Your task to perform on an android device: make emails show in primary in the gmail app Image 0: 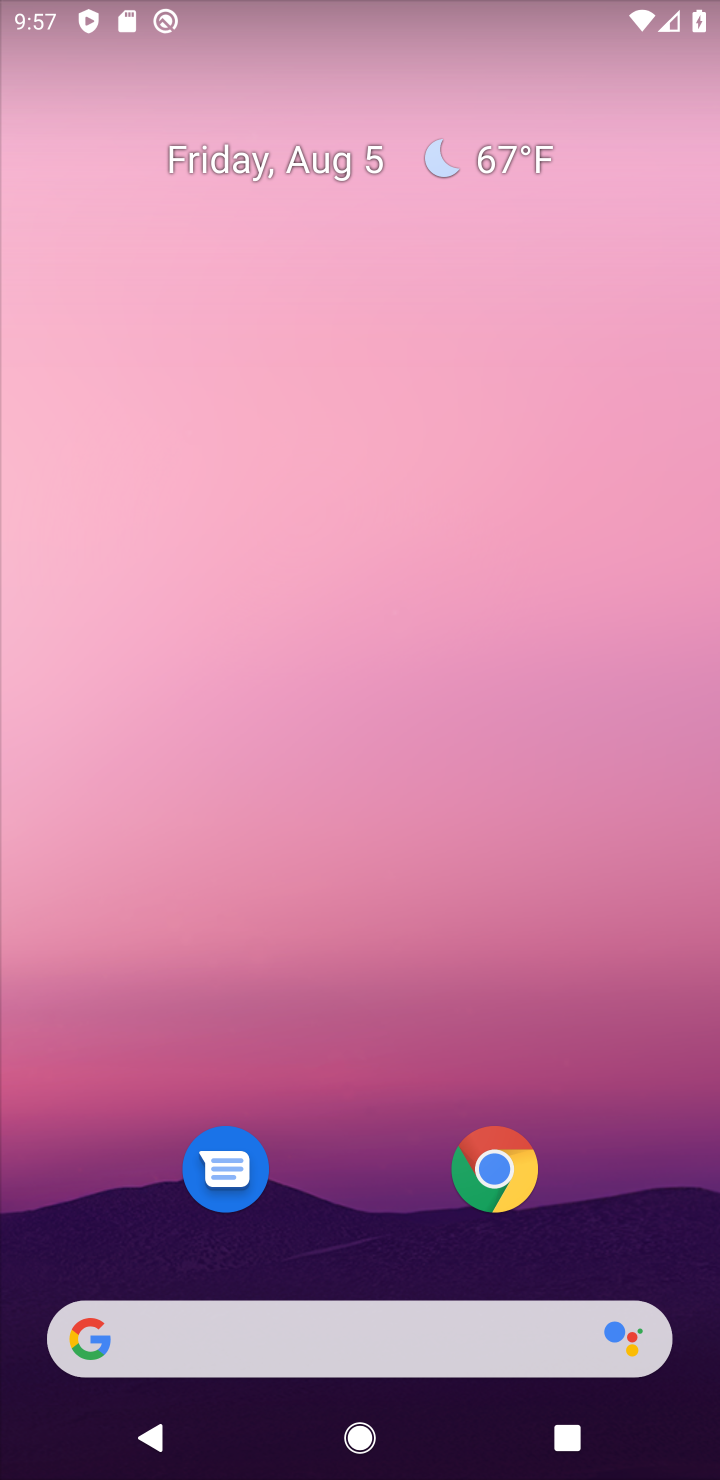
Step 0: drag from (645, 1200) to (575, 199)
Your task to perform on an android device: make emails show in primary in the gmail app Image 1: 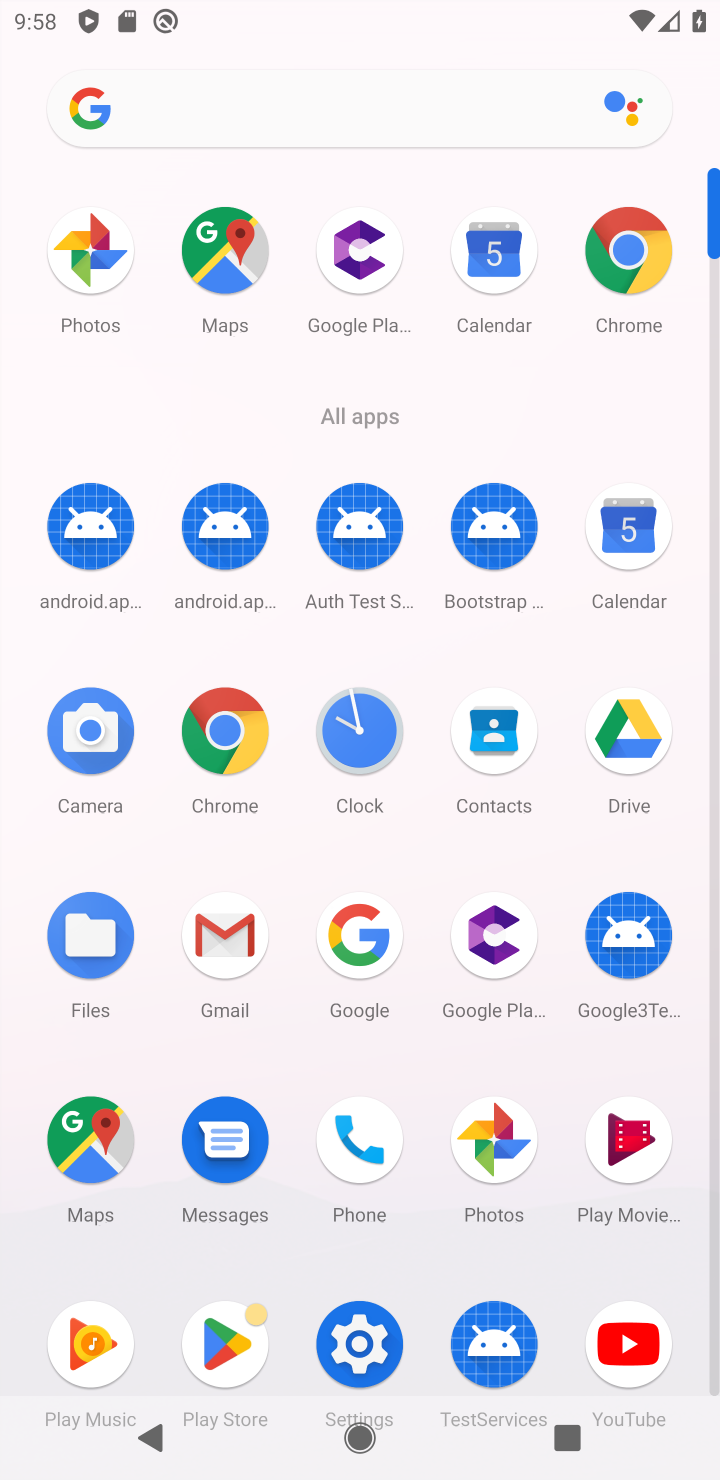
Step 1: click (218, 935)
Your task to perform on an android device: make emails show in primary in the gmail app Image 2: 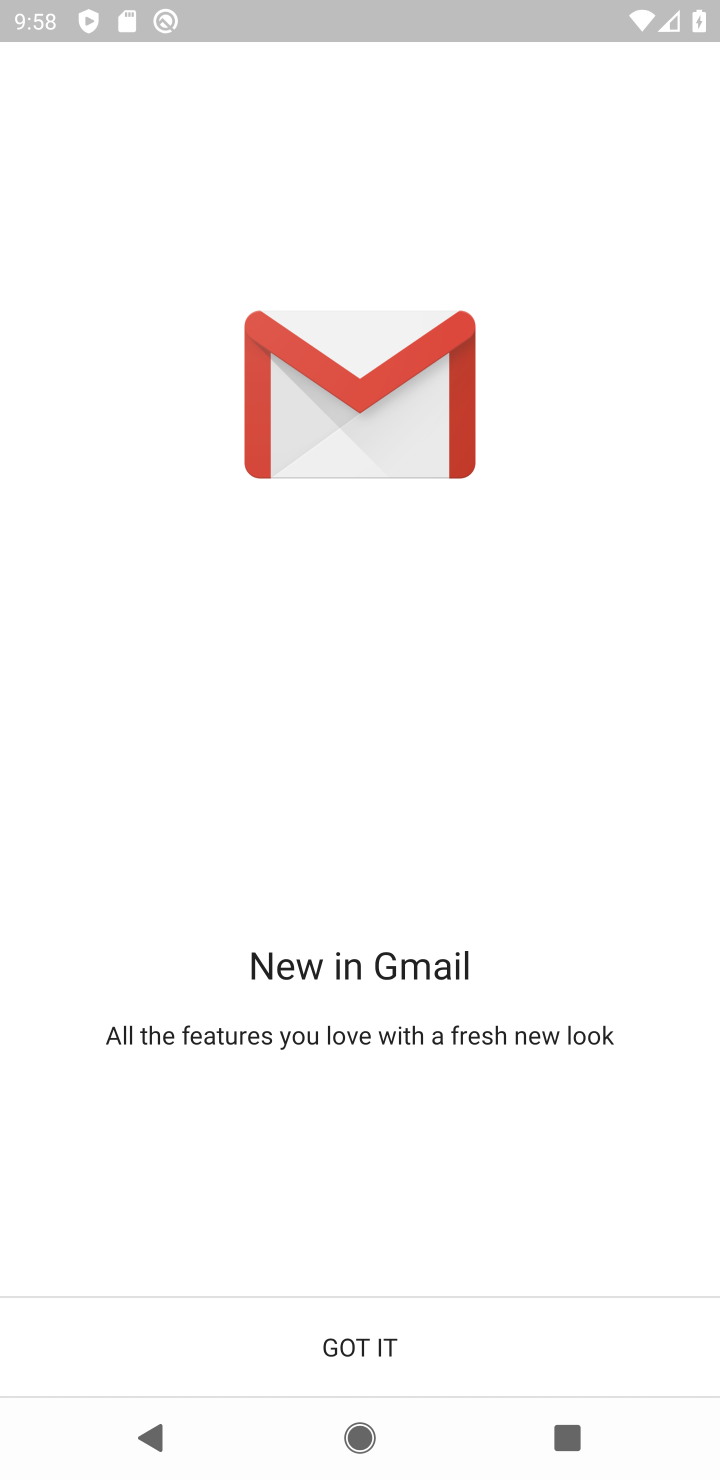
Step 2: click (345, 1338)
Your task to perform on an android device: make emails show in primary in the gmail app Image 3: 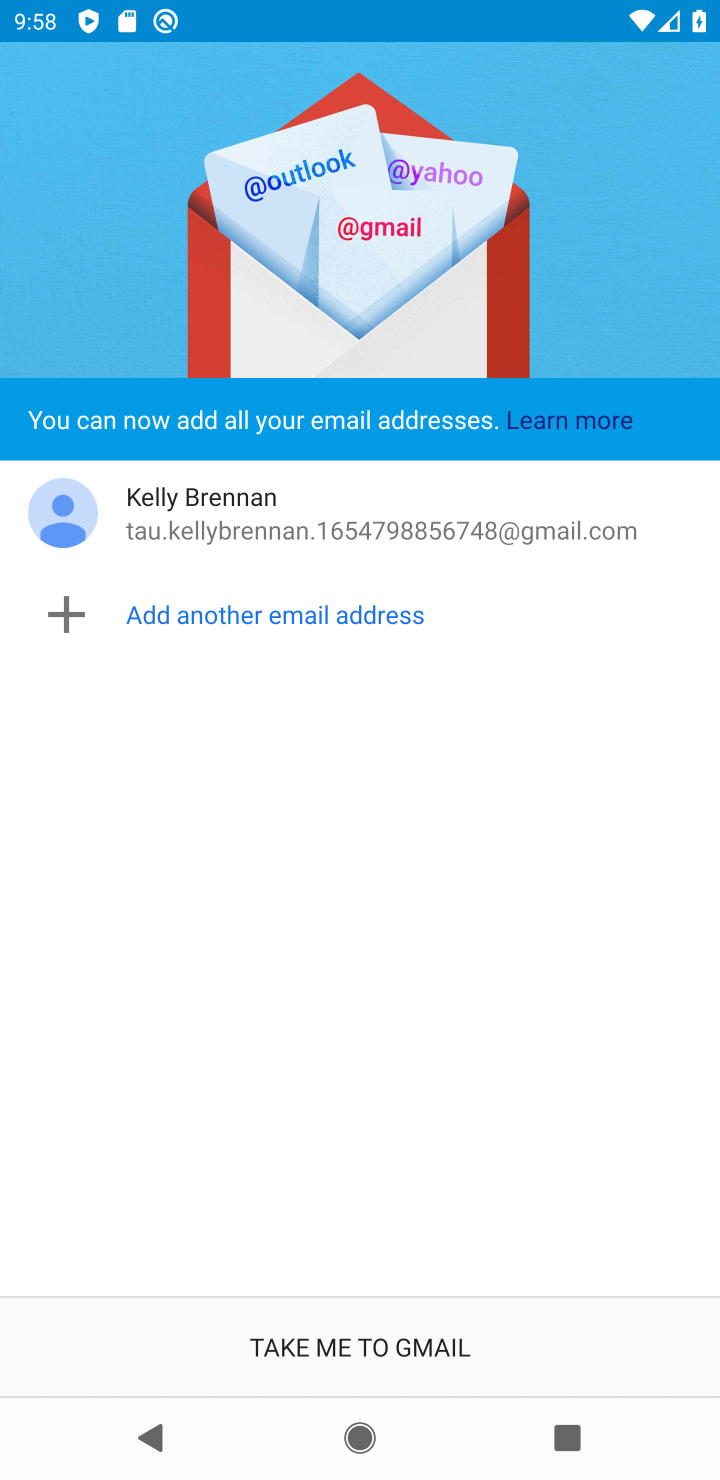
Step 3: click (331, 1348)
Your task to perform on an android device: make emails show in primary in the gmail app Image 4: 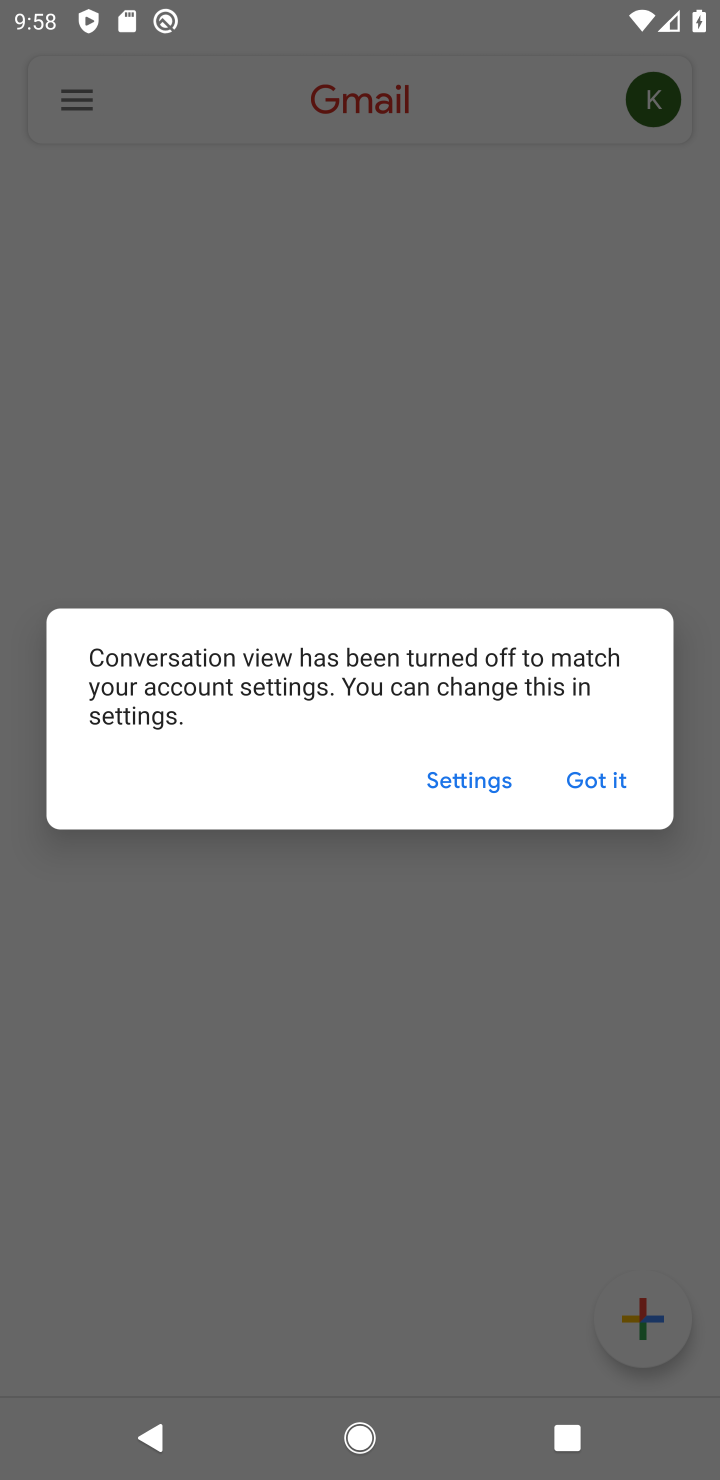
Step 4: click (621, 789)
Your task to perform on an android device: make emails show in primary in the gmail app Image 5: 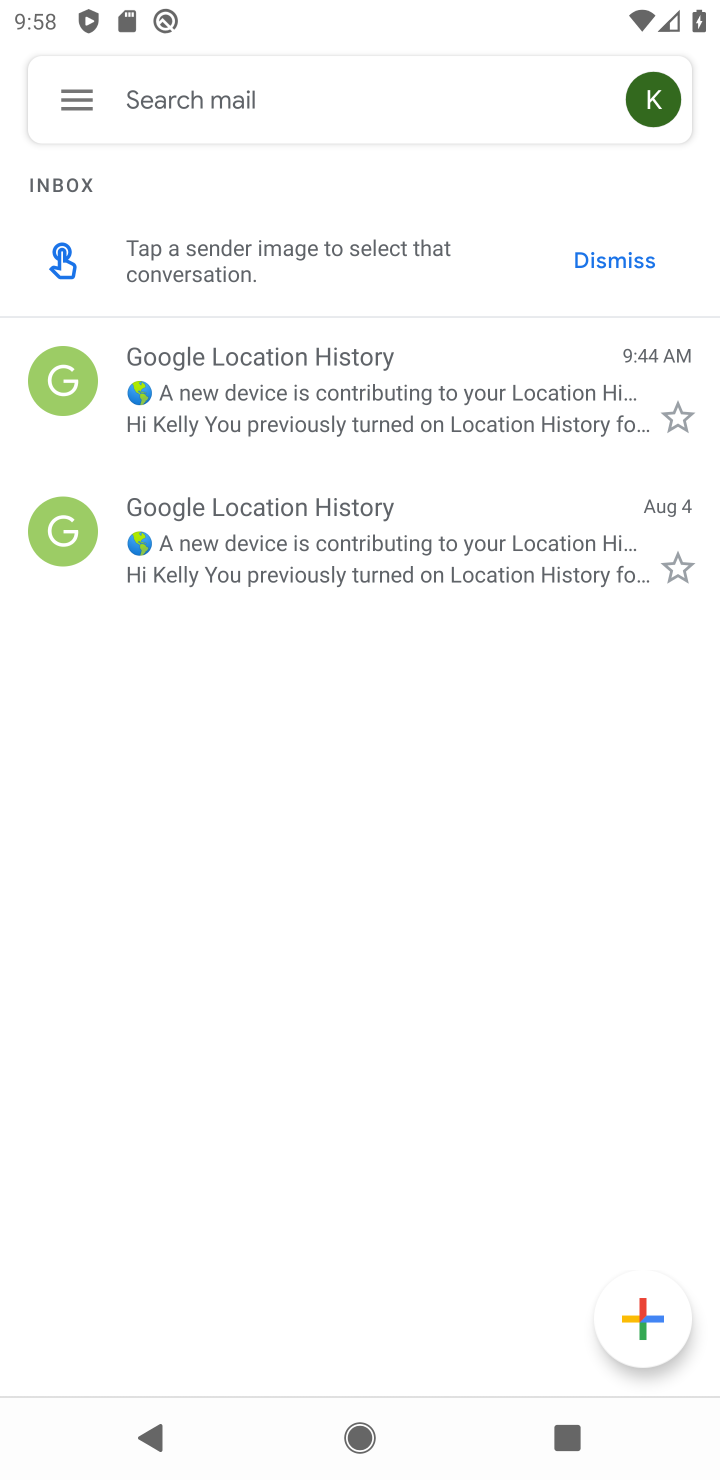
Step 5: click (82, 109)
Your task to perform on an android device: make emails show in primary in the gmail app Image 6: 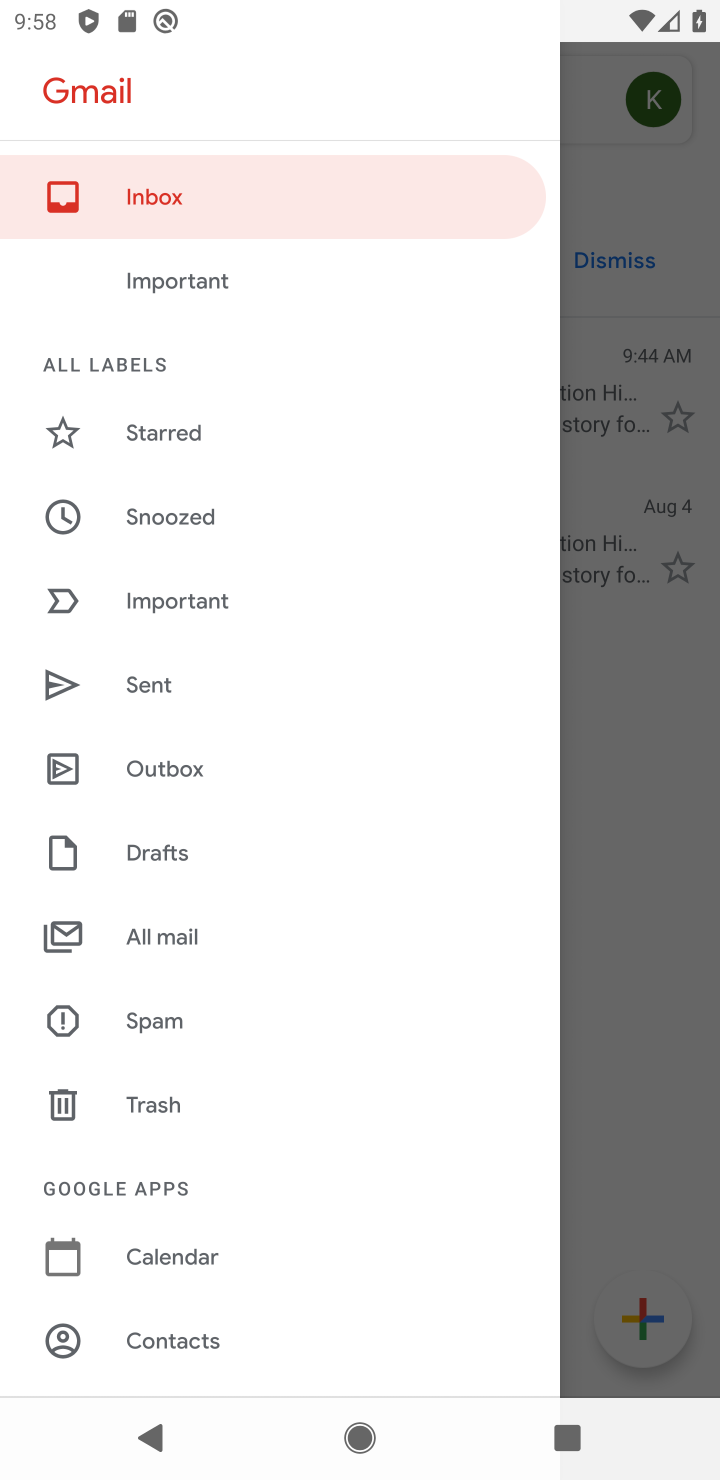
Step 6: drag from (176, 1333) to (288, 647)
Your task to perform on an android device: make emails show in primary in the gmail app Image 7: 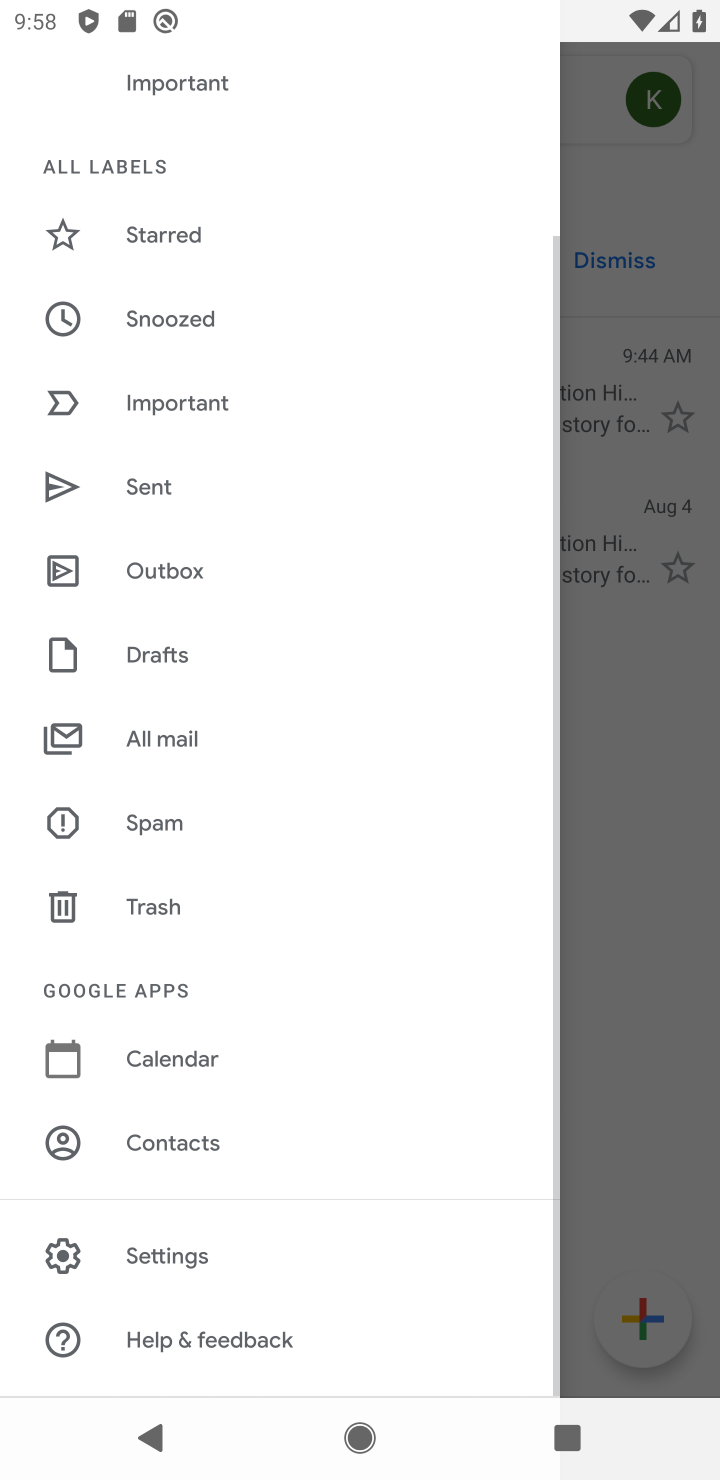
Step 7: click (141, 1255)
Your task to perform on an android device: make emails show in primary in the gmail app Image 8: 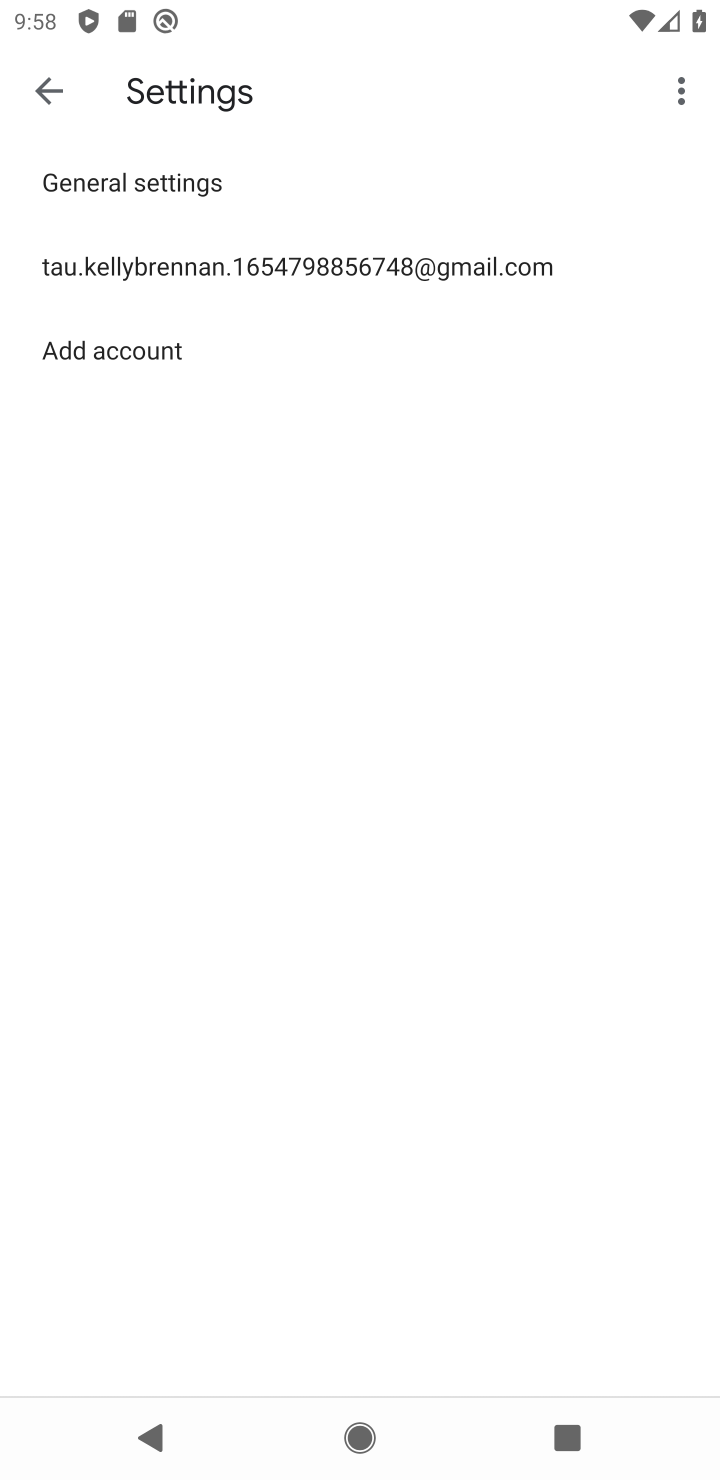
Step 8: click (256, 248)
Your task to perform on an android device: make emails show in primary in the gmail app Image 9: 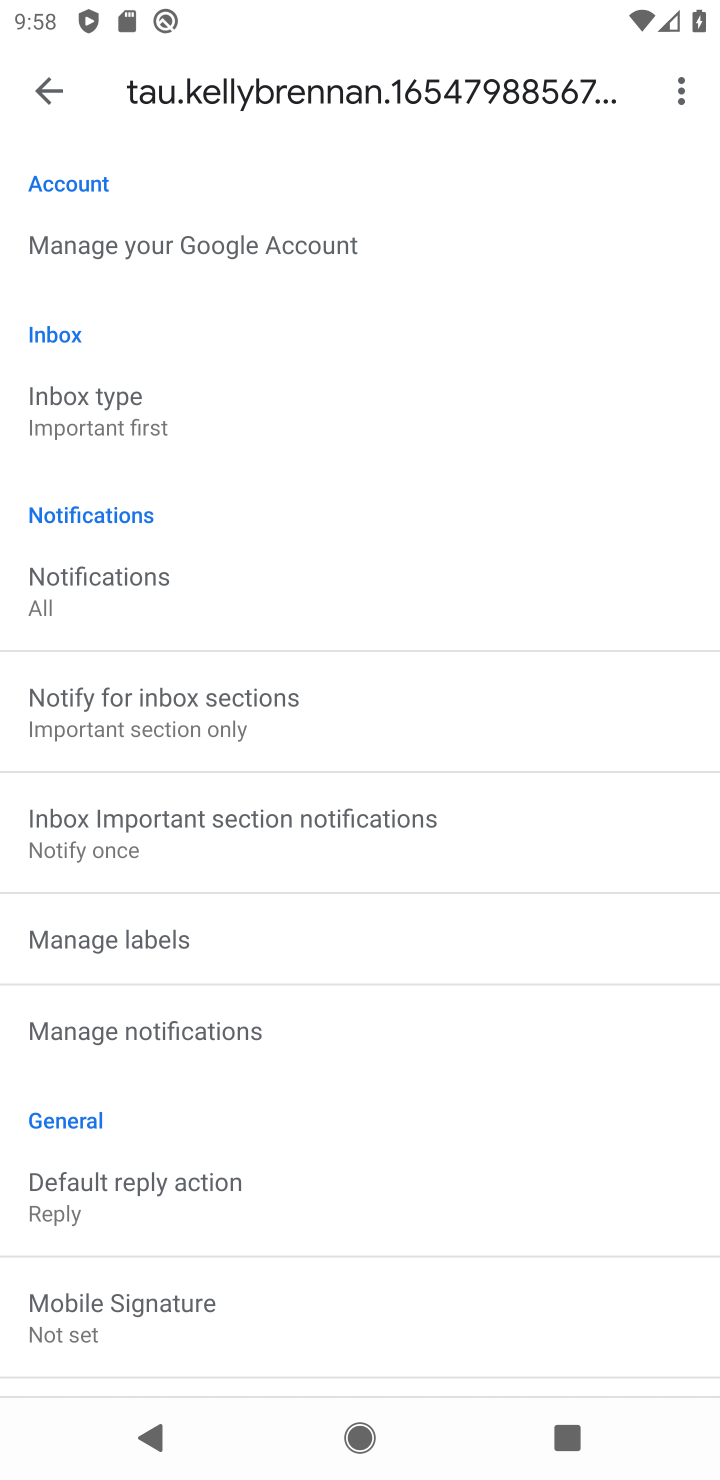
Step 9: click (45, 422)
Your task to perform on an android device: make emails show in primary in the gmail app Image 10: 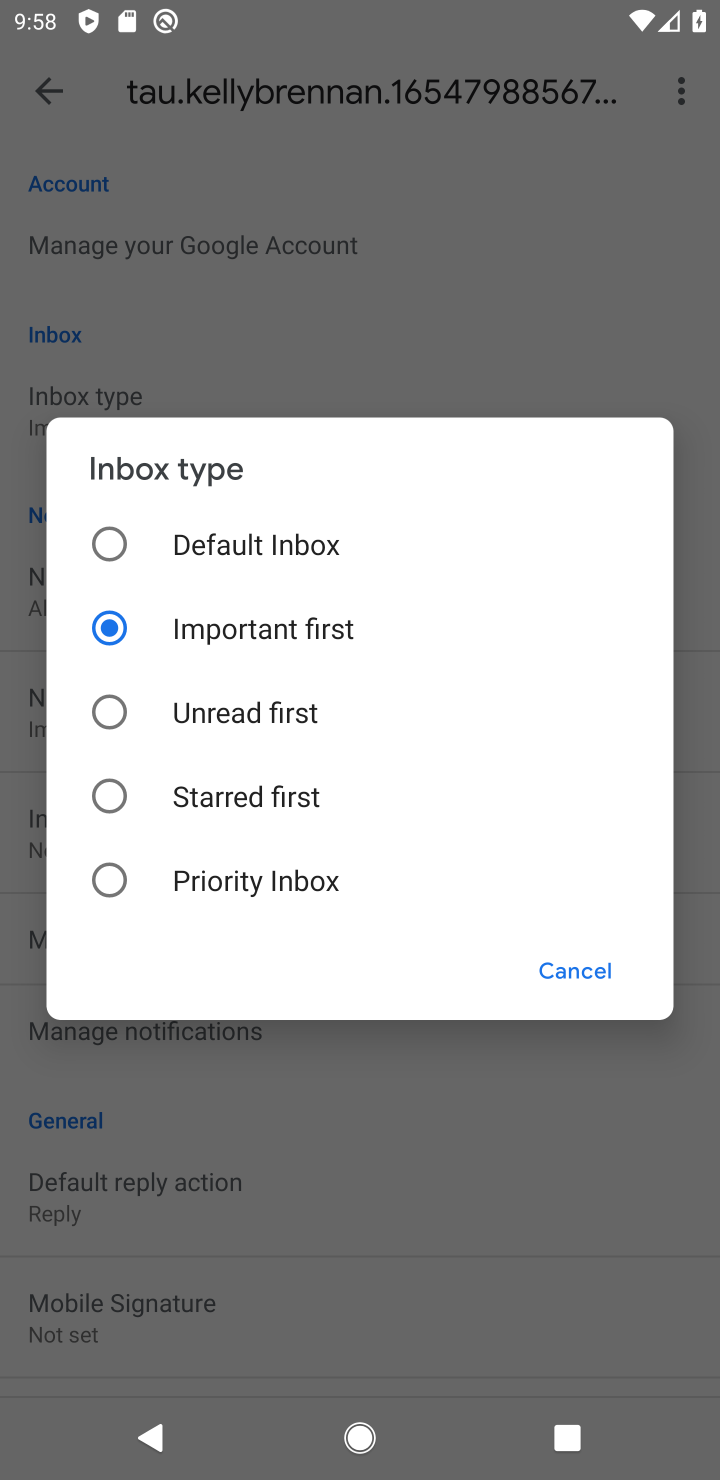
Step 10: click (108, 539)
Your task to perform on an android device: make emails show in primary in the gmail app Image 11: 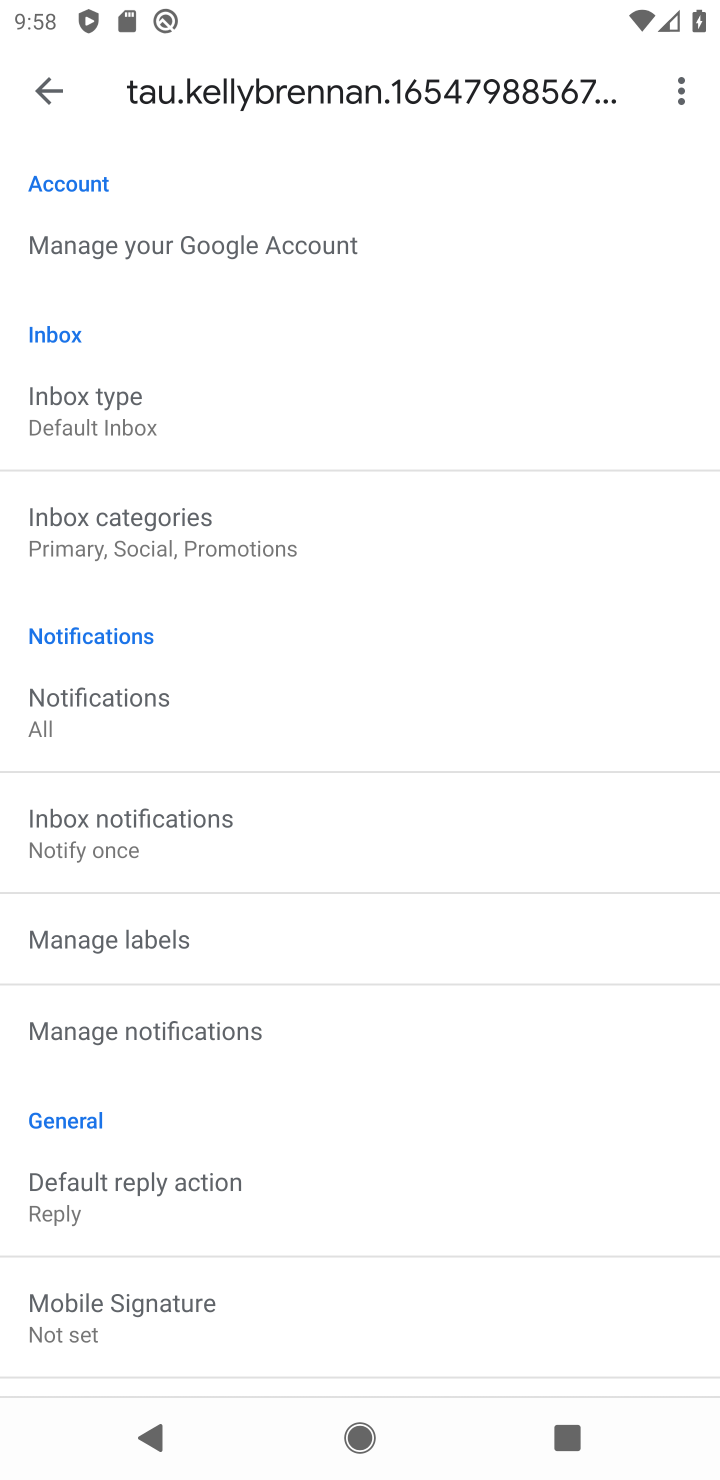
Step 11: click (165, 521)
Your task to perform on an android device: make emails show in primary in the gmail app Image 12: 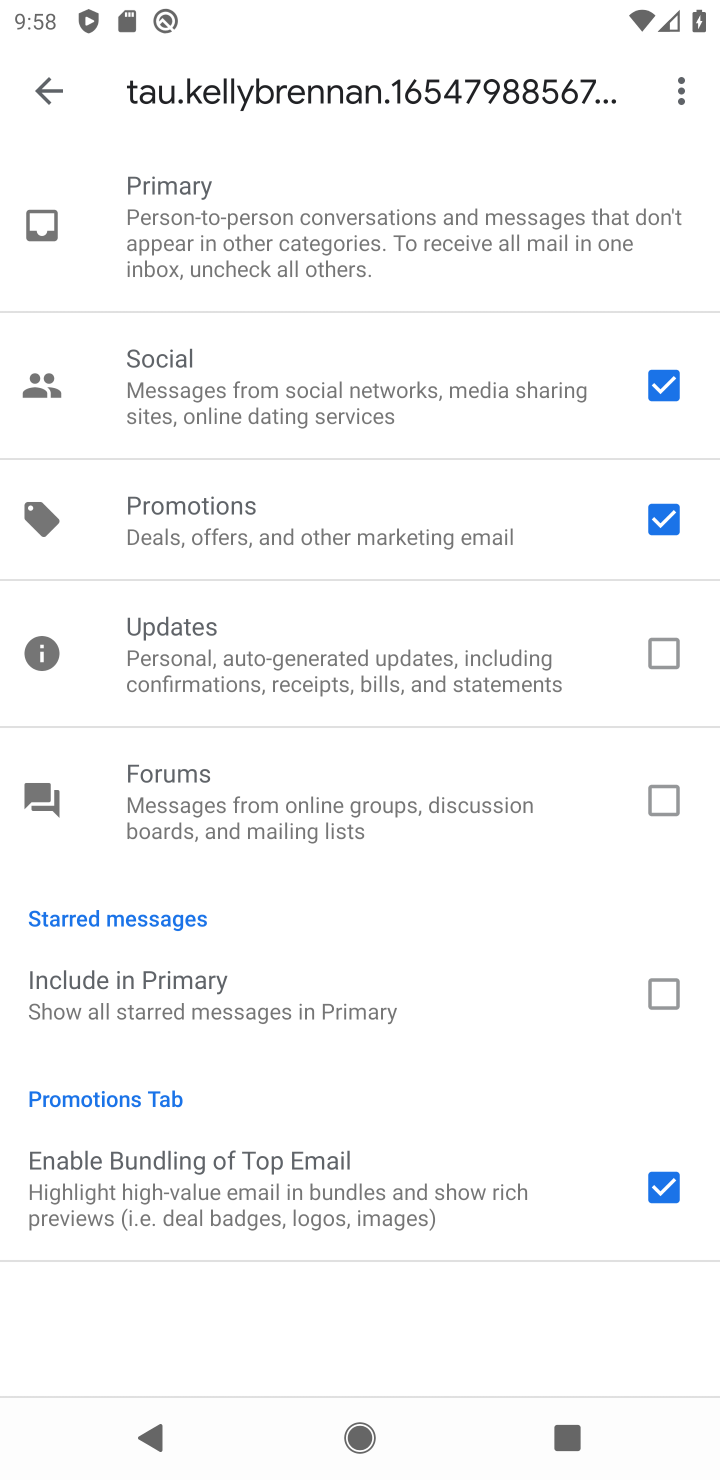
Step 12: click (663, 515)
Your task to perform on an android device: make emails show in primary in the gmail app Image 13: 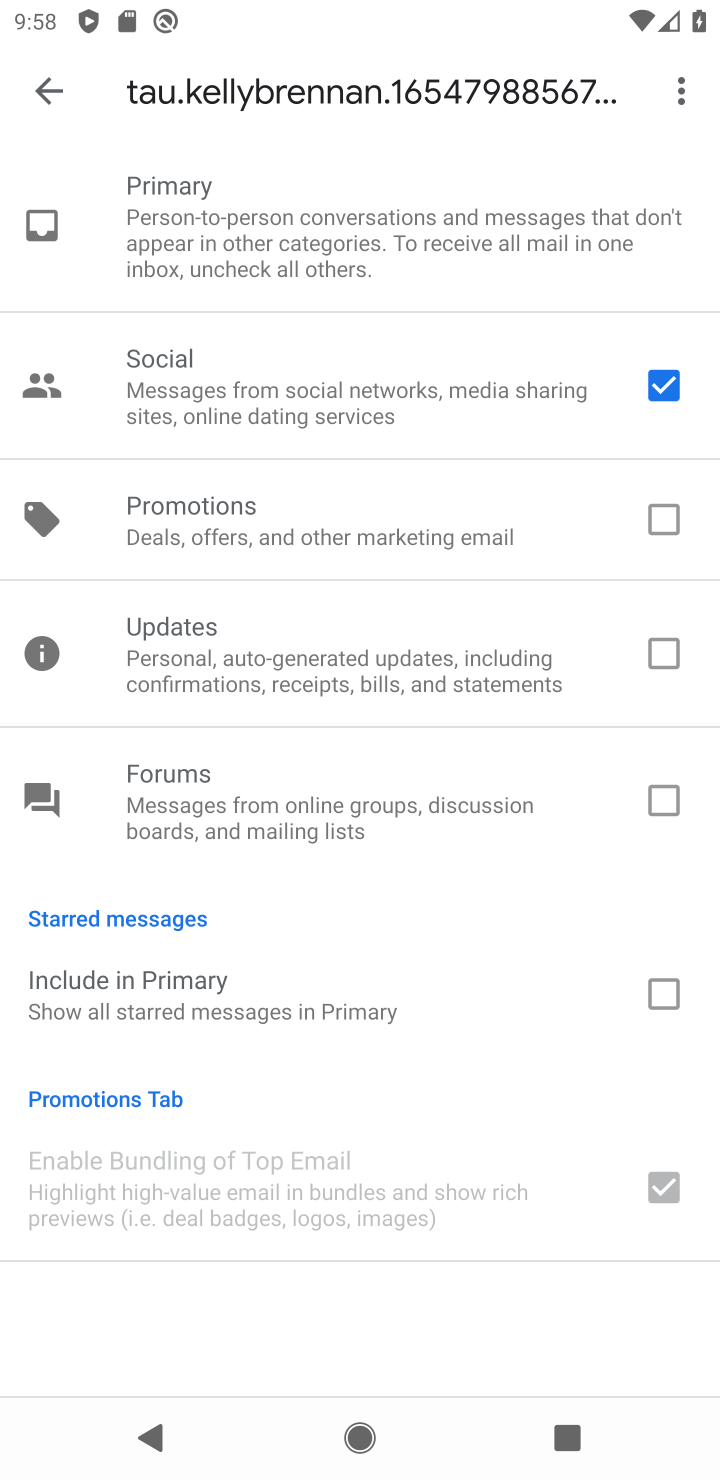
Step 13: click (662, 393)
Your task to perform on an android device: make emails show in primary in the gmail app Image 14: 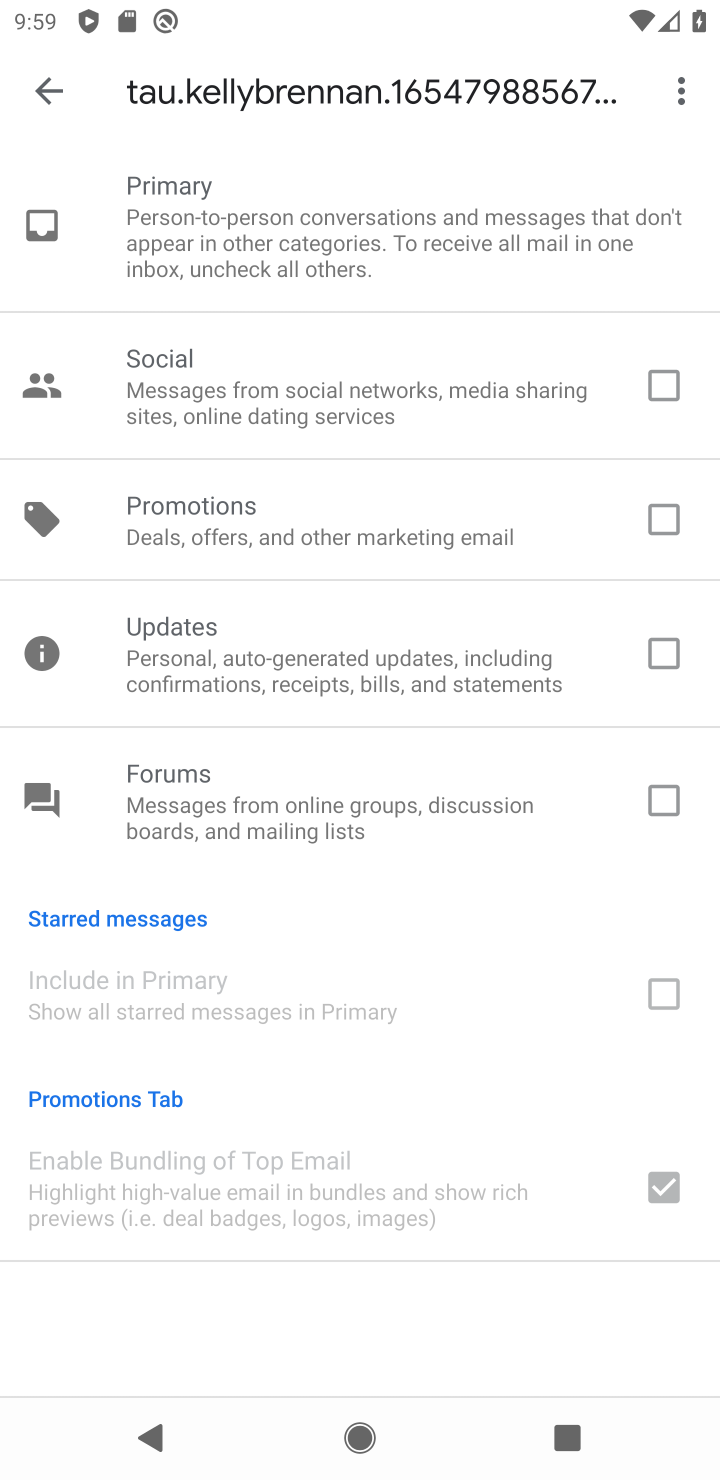
Step 14: task complete